Your task to perform on an android device: Open network settings Image 0: 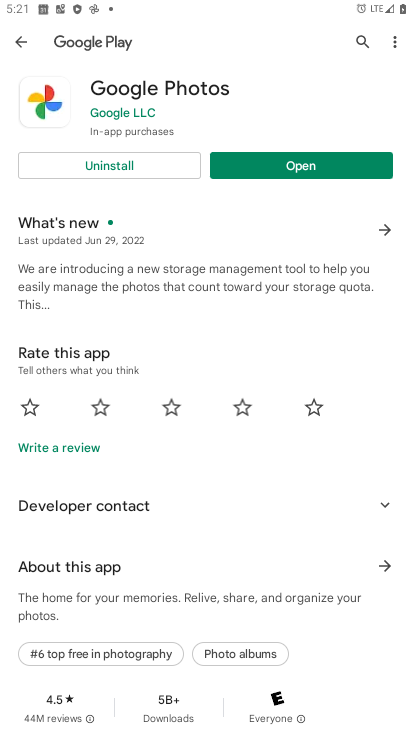
Step 0: press home button
Your task to perform on an android device: Open network settings Image 1: 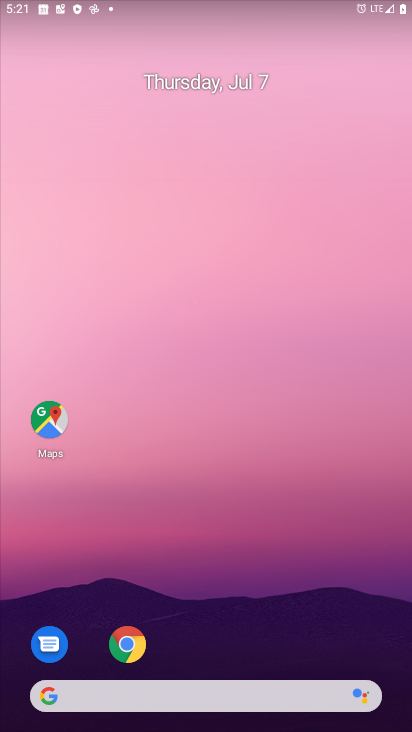
Step 1: drag from (244, 644) to (239, 108)
Your task to perform on an android device: Open network settings Image 2: 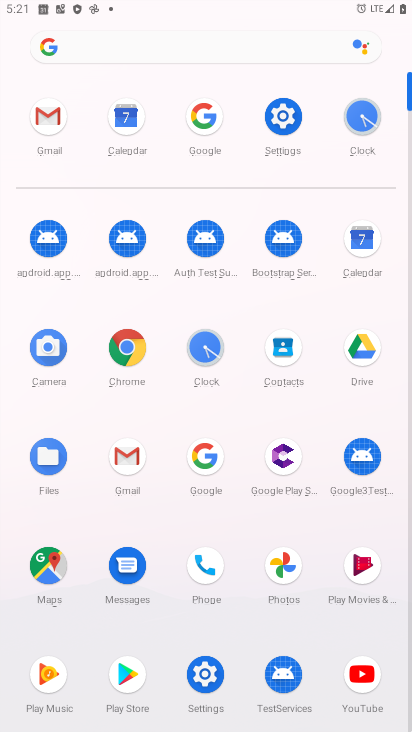
Step 2: click (205, 673)
Your task to perform on an android device: Open network settings Image 3: 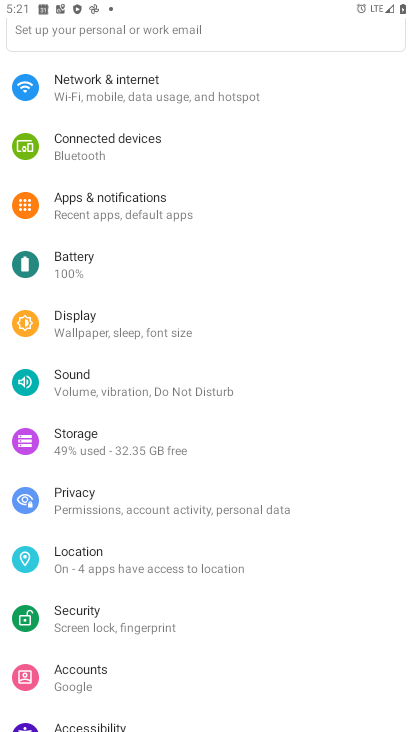
Step 3: click (105, 81)
Your task to perform on an android device: Open network settings Image 4: 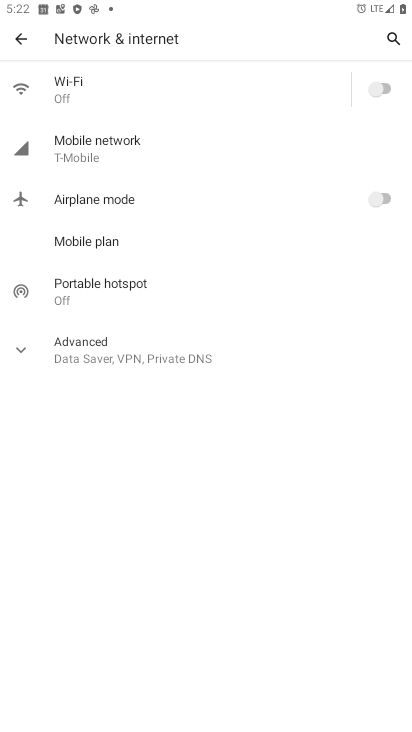
Step 4: task complete